Your task to perform on an android device: What's the weather today? Image 0: 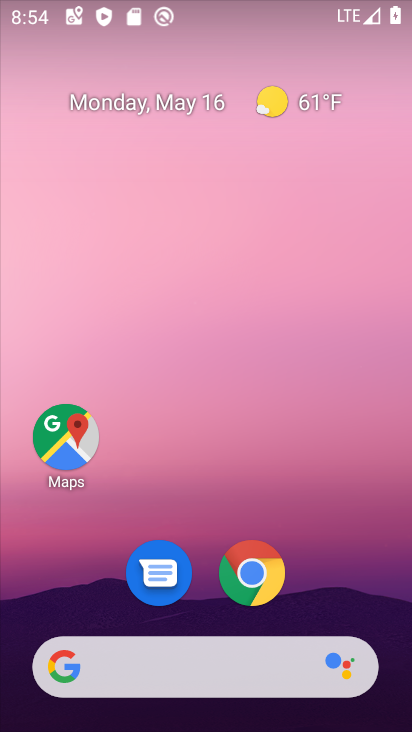
Step 0: click (270, 101)
Your task to perform on an android device: What's the weather today? Image 1: 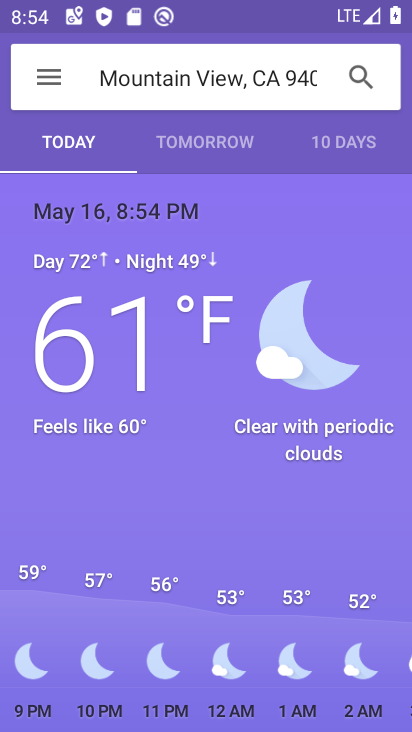
Step 1: task complete